Your task to perform on an android device: toggle sleep mode Image 0: 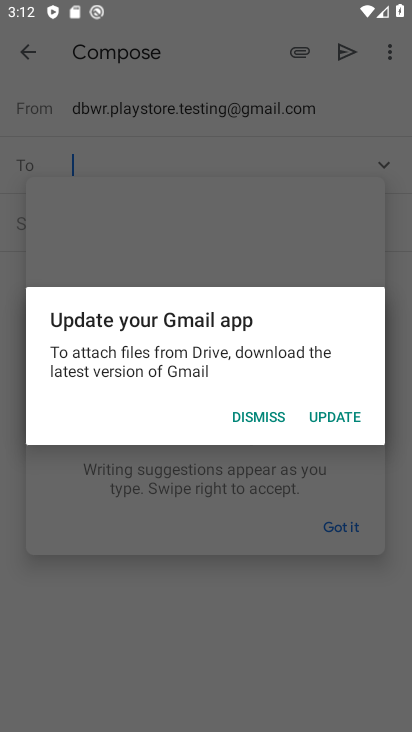
Step 0: press home button
Your task to perform on an android device: toggle sleep mode Image 1: 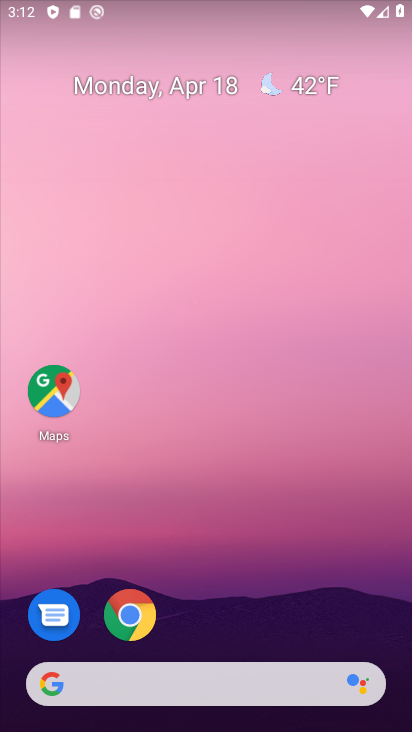
Step 1: drag from (231, 702) to (289, 190)
Your task to perform on an android device: toggle sleep mode Image 2: 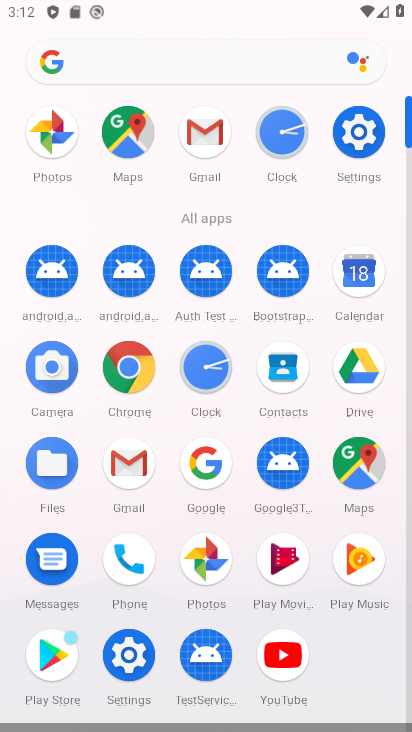
Step 2: click (365, 127)
Your task to perform on an android device: toggle sleep mode Image 3: 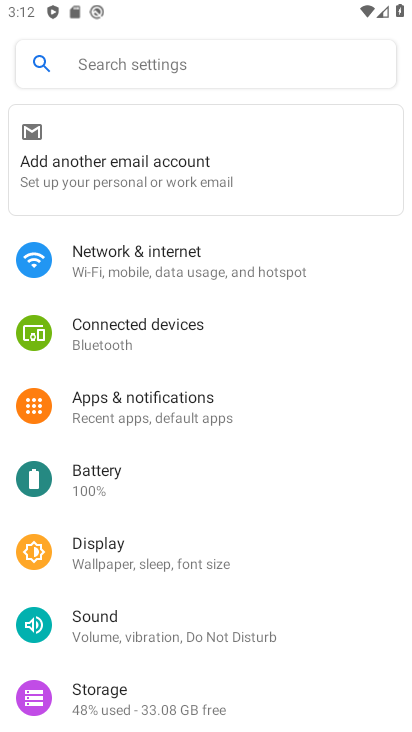
Step 3: drag from (301, 572) to (309, 492)
Your task to perform on an android device: toggle sleep mode Image 4: 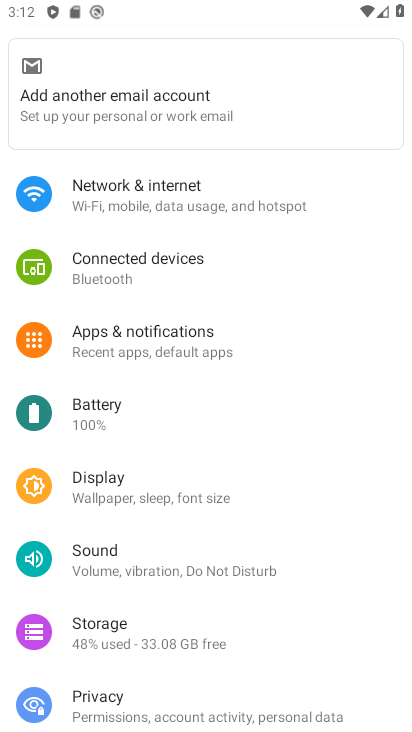
Step 4: click (311, 494)
Your task to perform on an android device: toggle sleep mode Image 5: 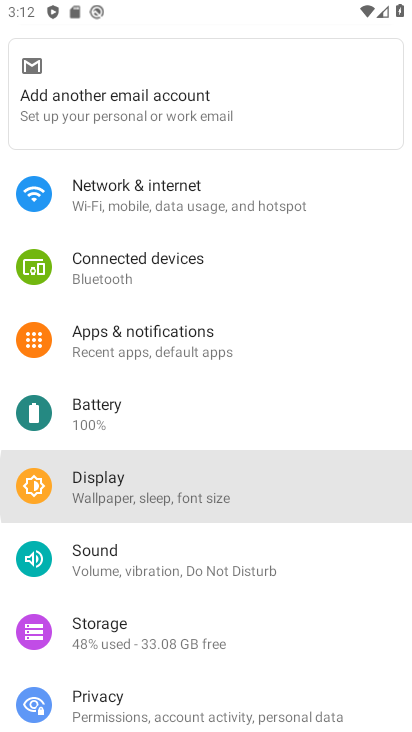
Step 5: click (77, 408)
Your task to perform on an android device: toggle sleep mode Image 6: 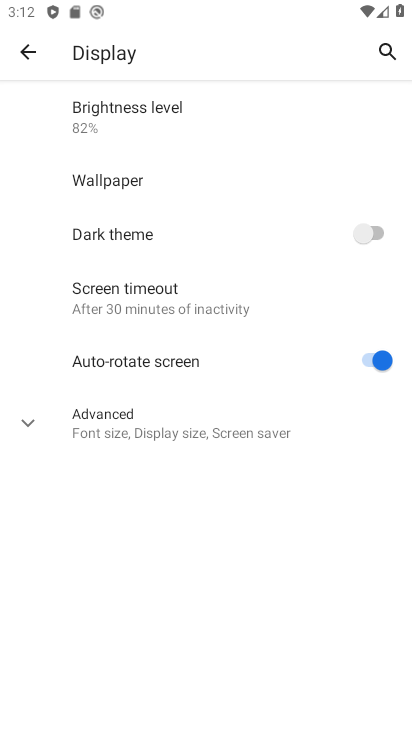
Step 6: task complete